Your task to perform on an android device: toggle wifi Image 0: 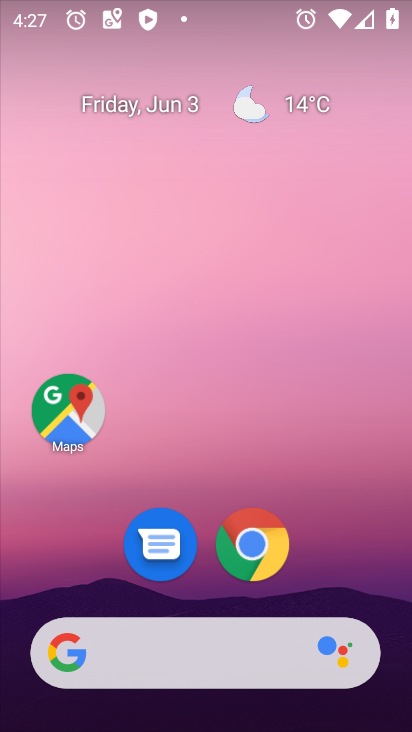
Step 0: drag from (395, 613) to (332, 71)
Your task to perform on an android device: toggle wifi Image 1: 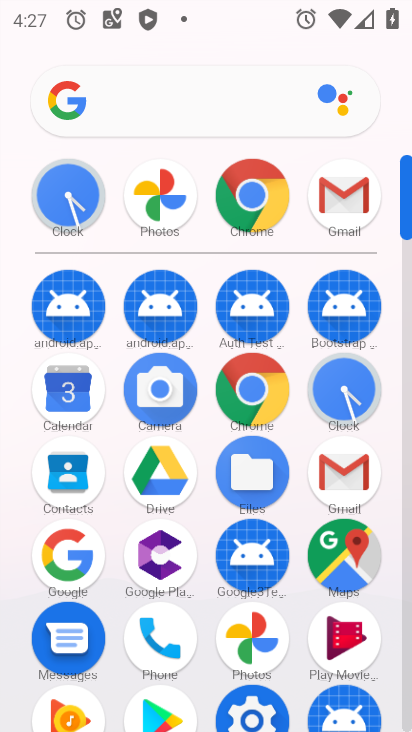
Step 1: click (253, 718)
Your task to perform on an android device: toggle wifi Image 2: 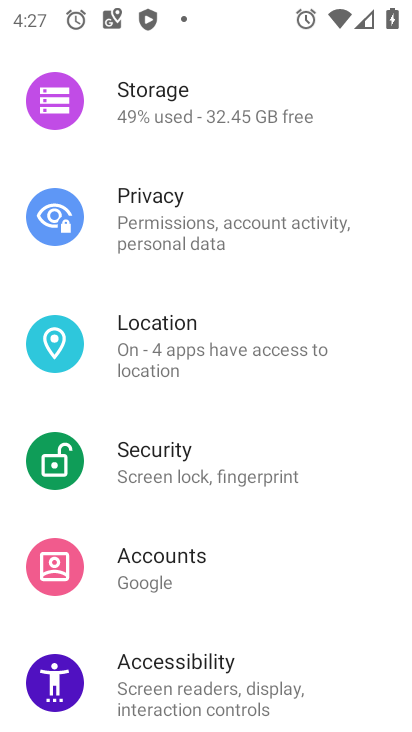
Step 2: drag from (325, 311) to (322, 641)
Your task to perform on an android device: toggle wifi Image 3: 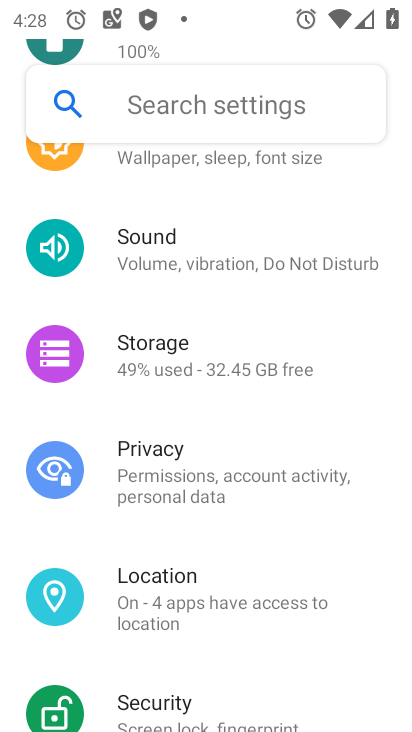
Step 3: drag from (343, 195) to (352, 659)
Your task to perform on an android device: toggle wifi Image 4: 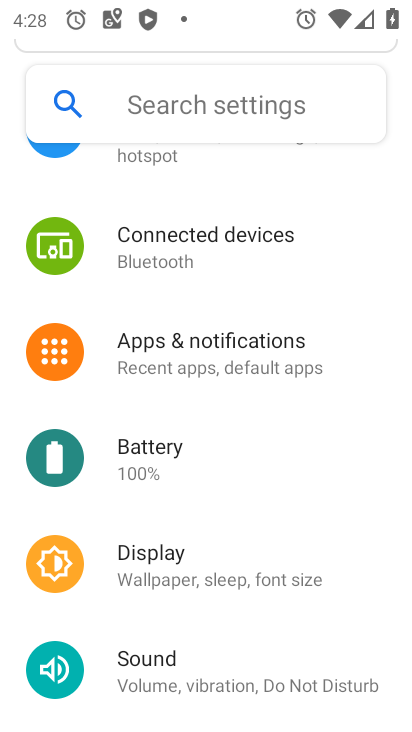
Step 4: drag from (342, 242) to (335, 483)
Your task to perform on an android device: toggle wifi Image 5: 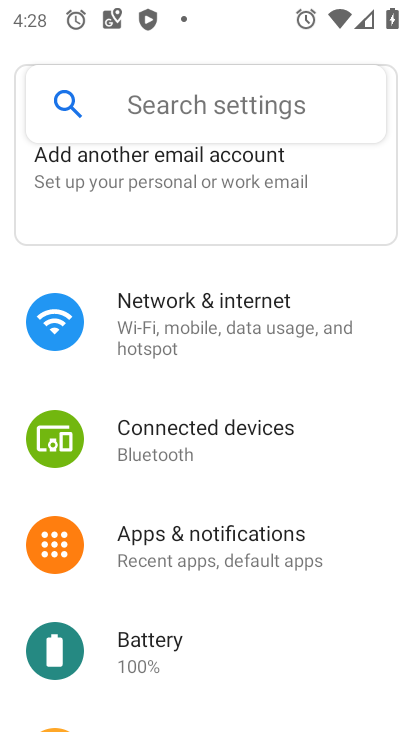
Step 5: click (141, 301)
Your task to perform on an android device: toggle wifi Image 6: 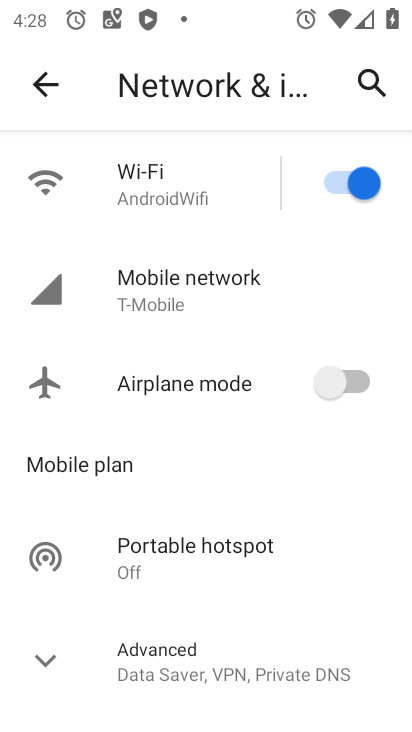
Step 6: click (320, 171)
Your task to perform on an android device: toggle wifi Image 7: 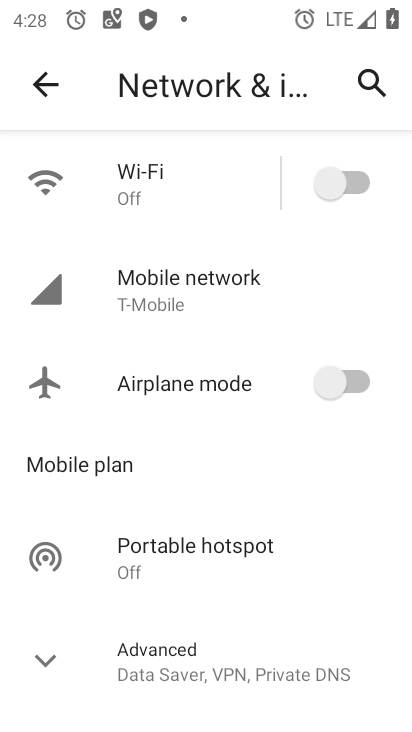
Step 7: task complete